Your task to perform on an android device: install app "Google Translate" Image 0: 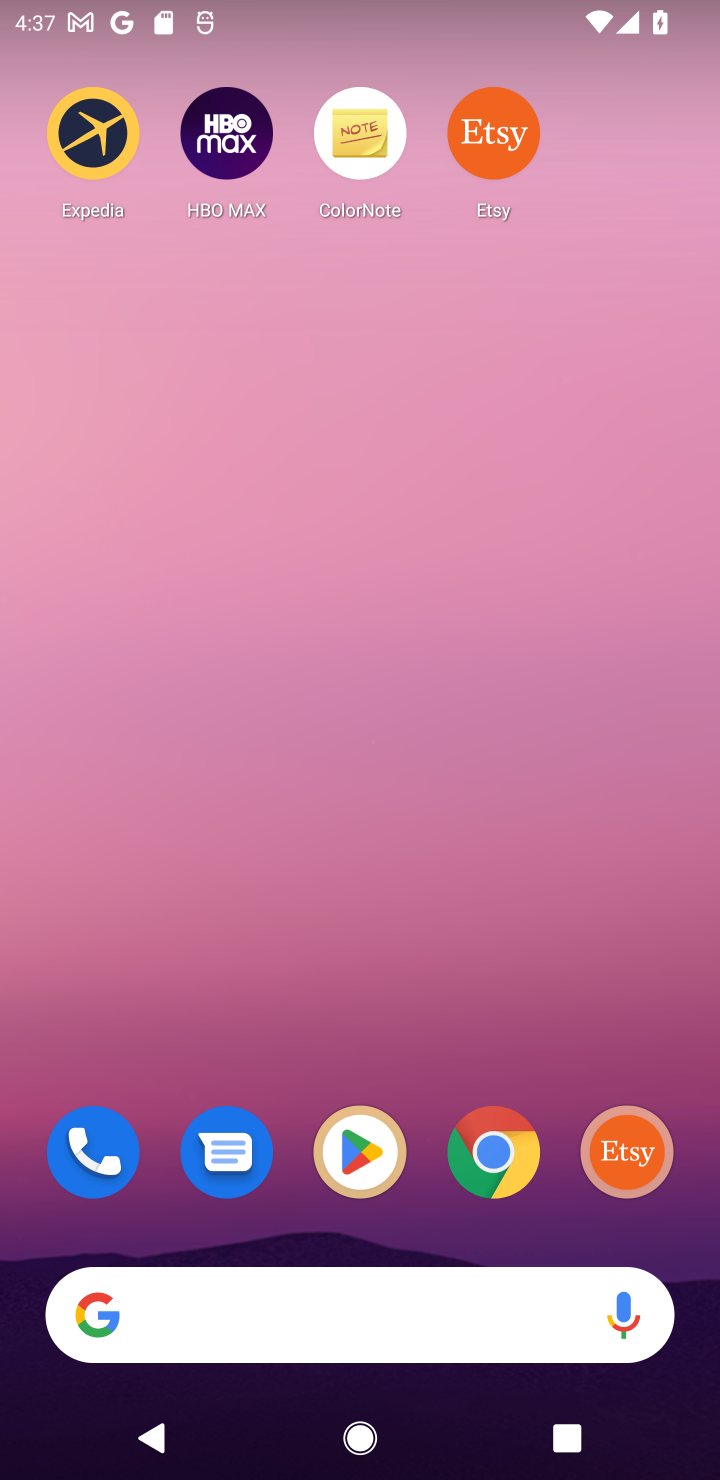
Step 0: click (351, 1170)
Your task to perform on an android device: install app "Google Translate" Image 1: 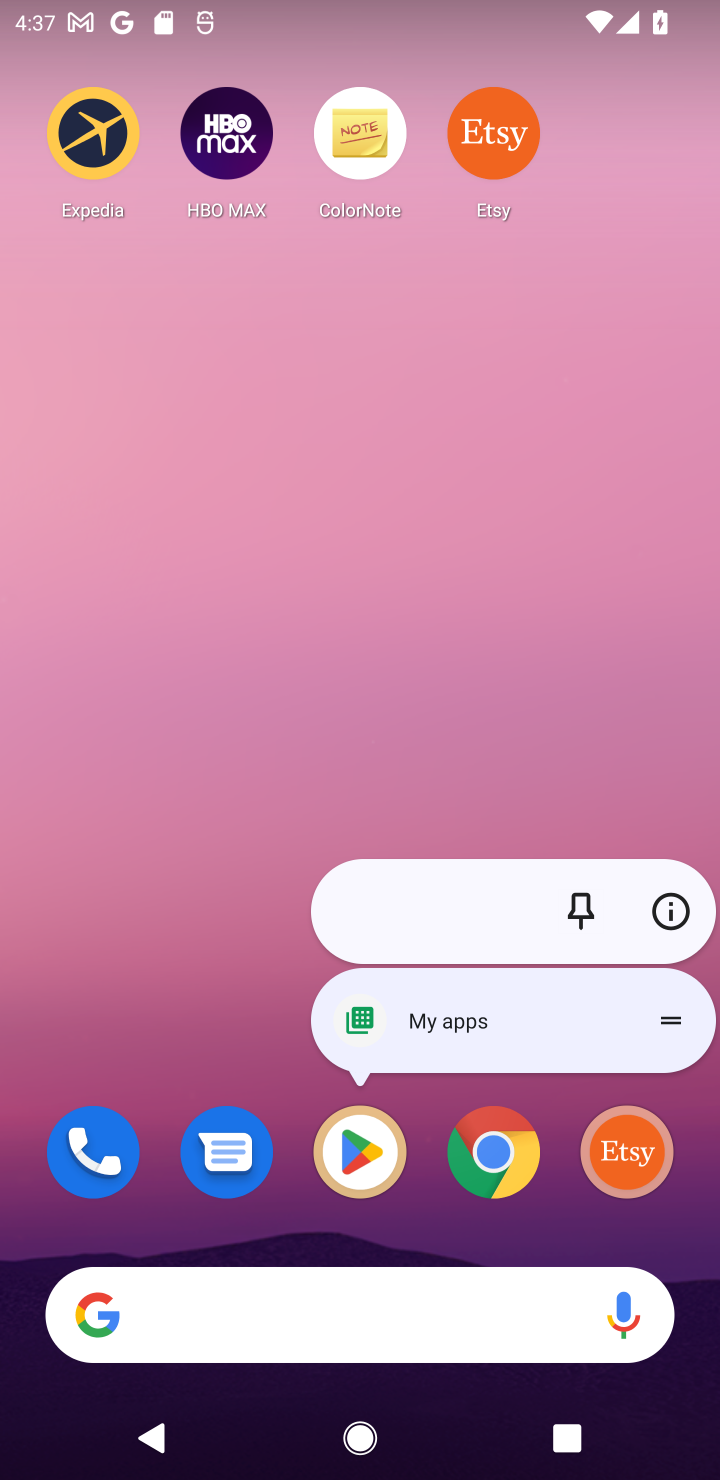
Step 1: click (367, 1173)
Your task to perform on an android device: install app "Google Translate" Image 2: 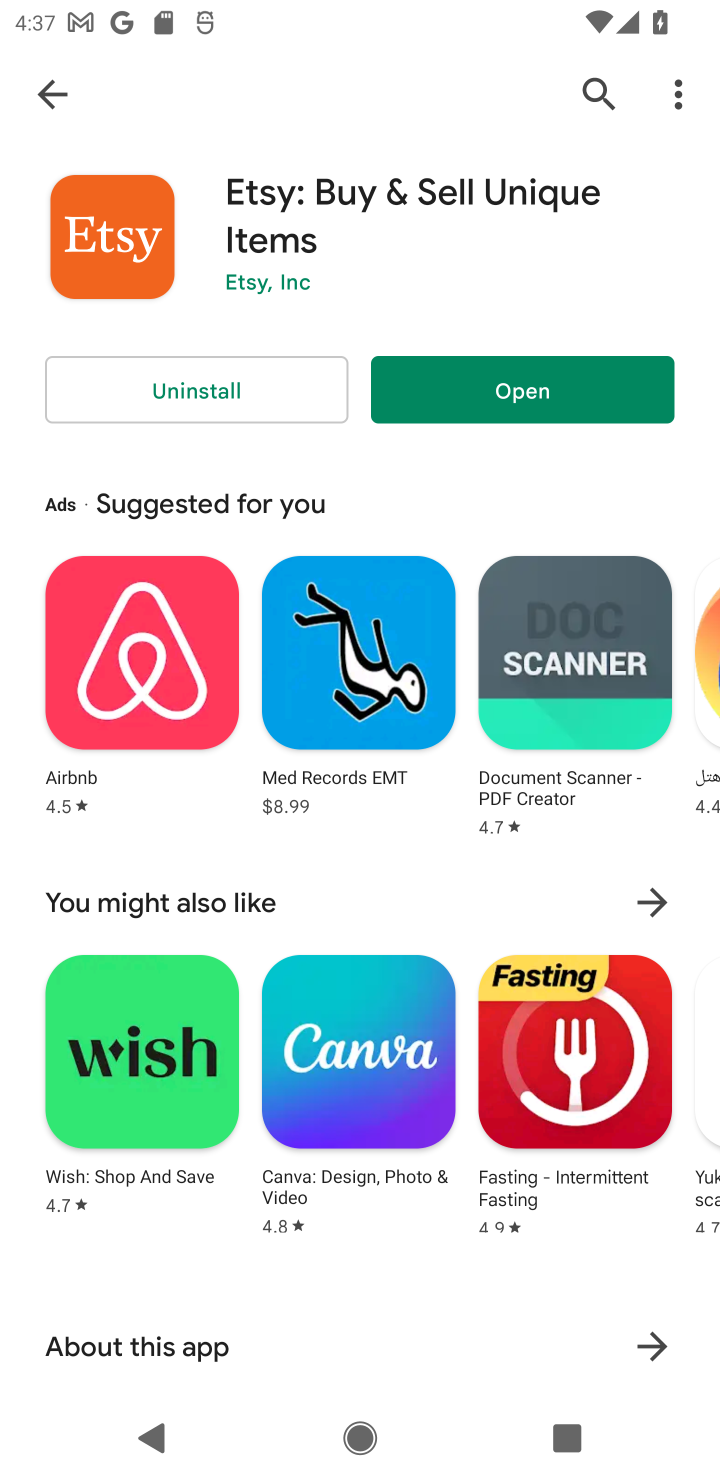
Step 2: click (44, 115)
Your task to perform on an android device: install app "Google Translate" Image 3: 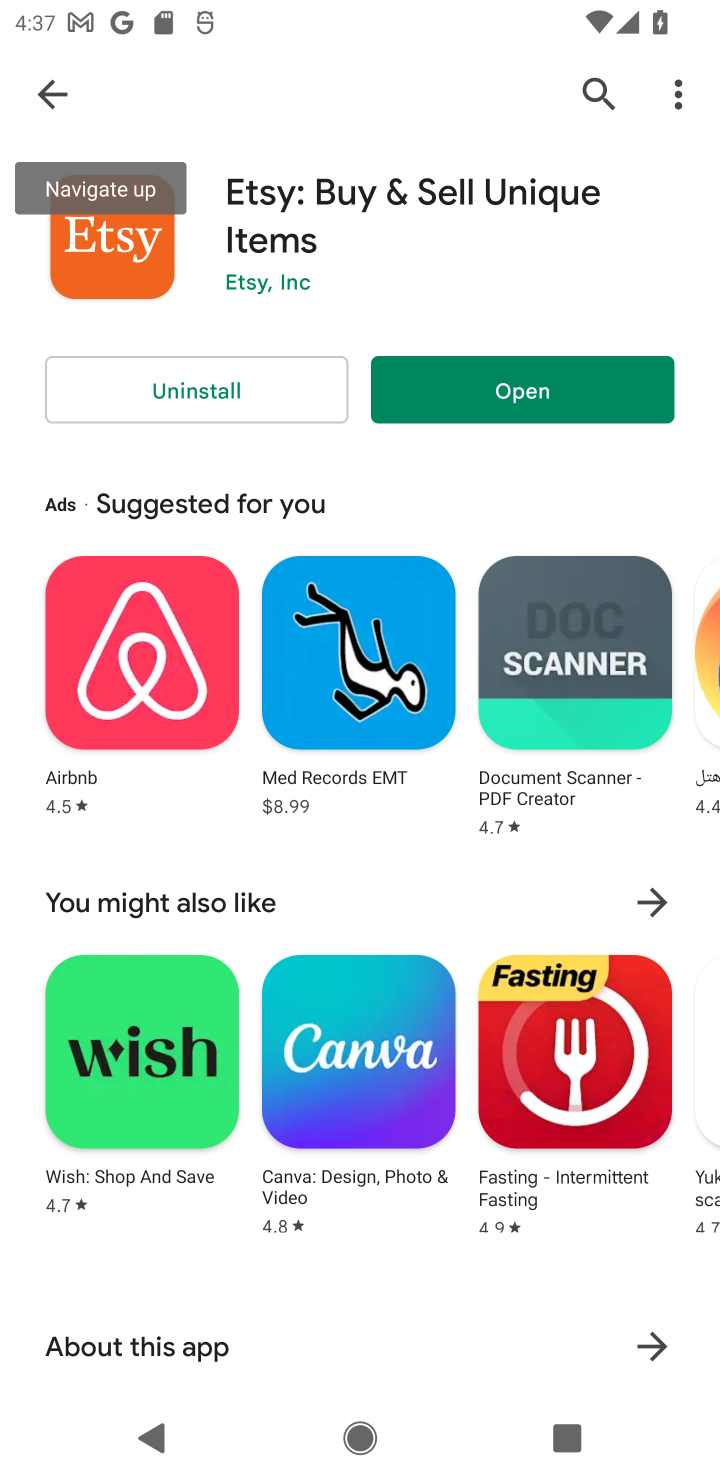
Step 3: click (44, 115)
Your task to perform on an android device: install app "Google Translate" Image 4: 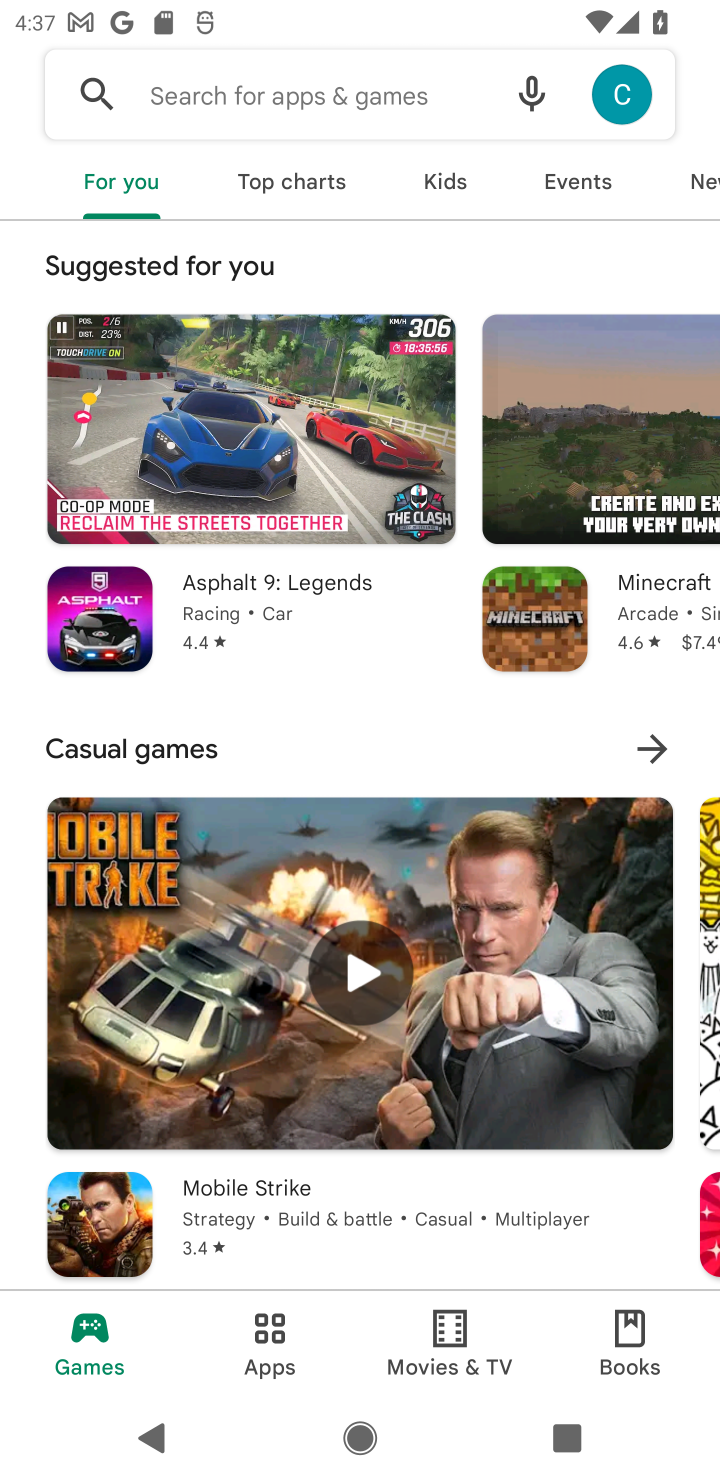
Step 4: click (136, 97)
Your task to perform on an android device: install app "Google Translate" Image 5: 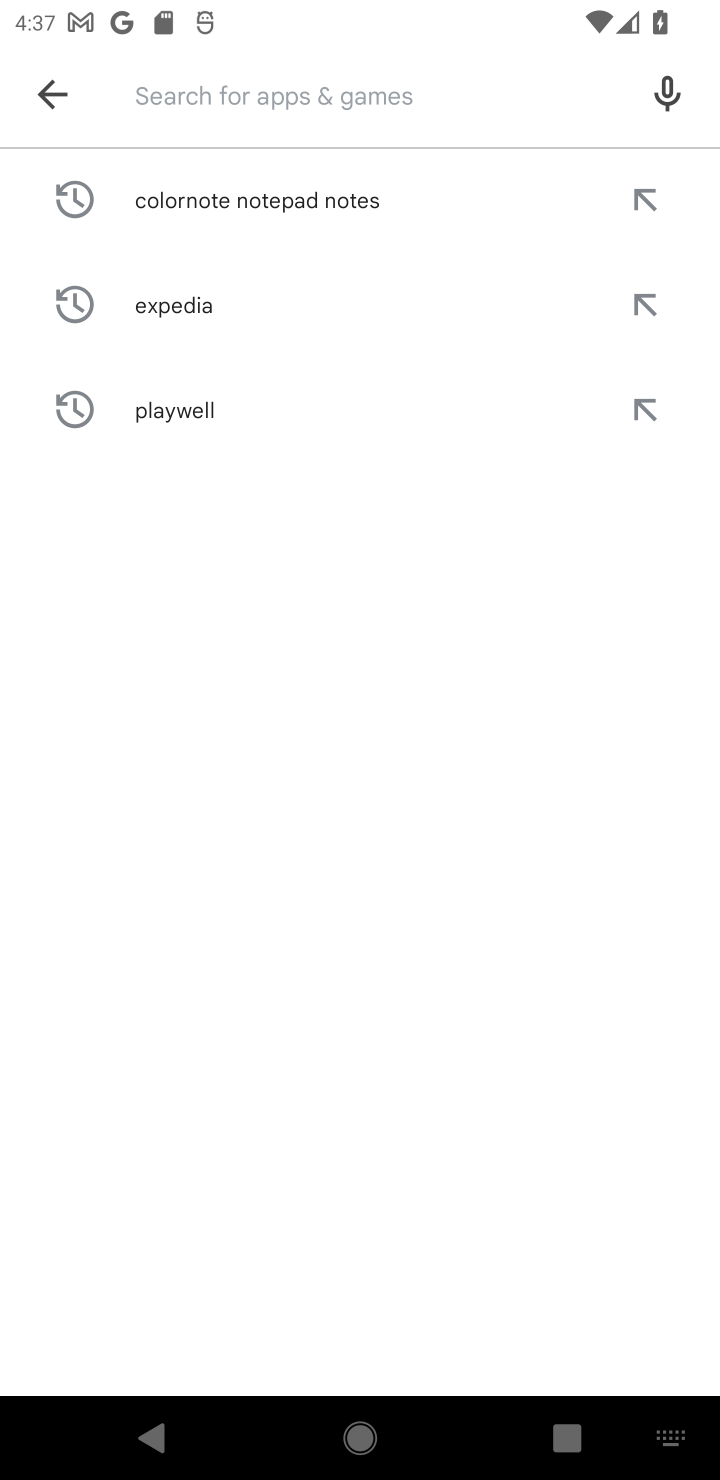
Step 5: type "Google Translate"
Your task to perform on an android device: install app "Google Translate" Image 6: 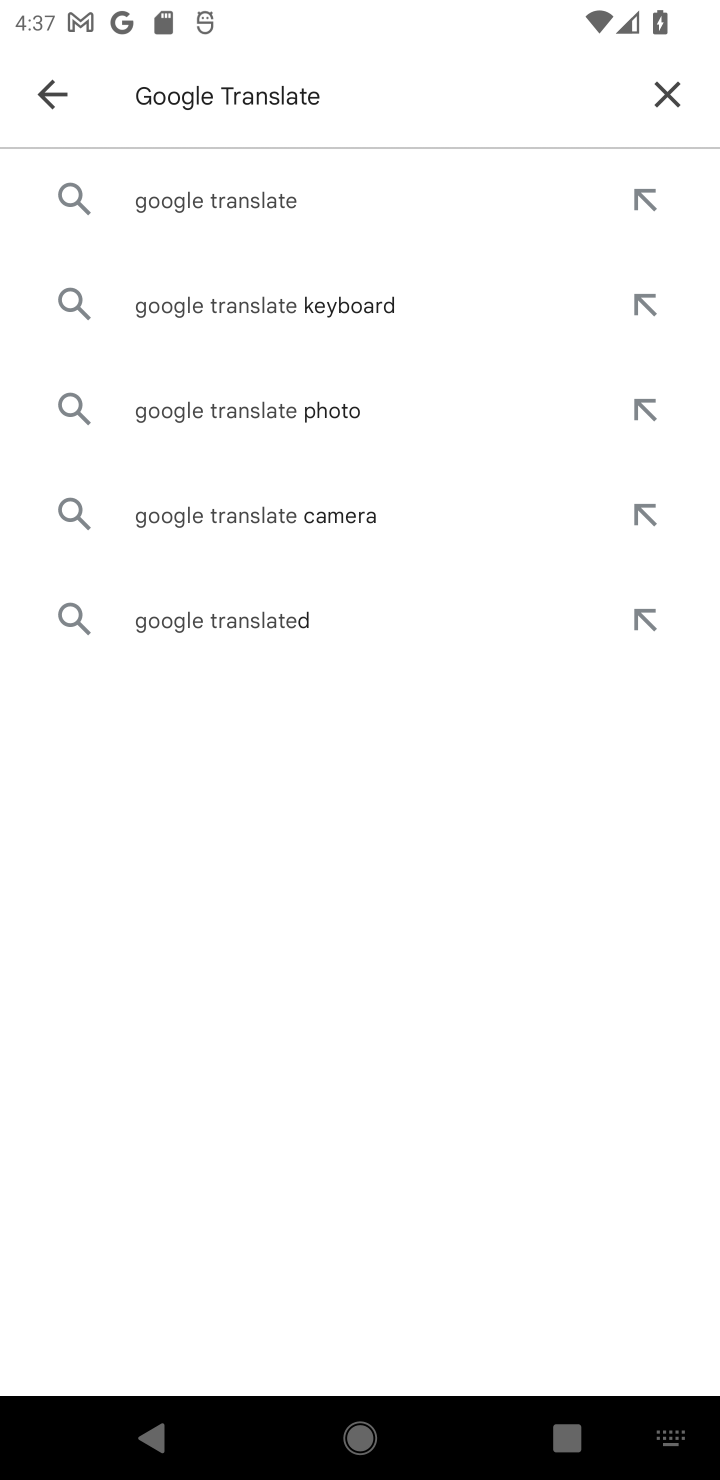
Step 6: click (297, 216)
Your task to perform on an android device: install app "Google Translate" Image 7: 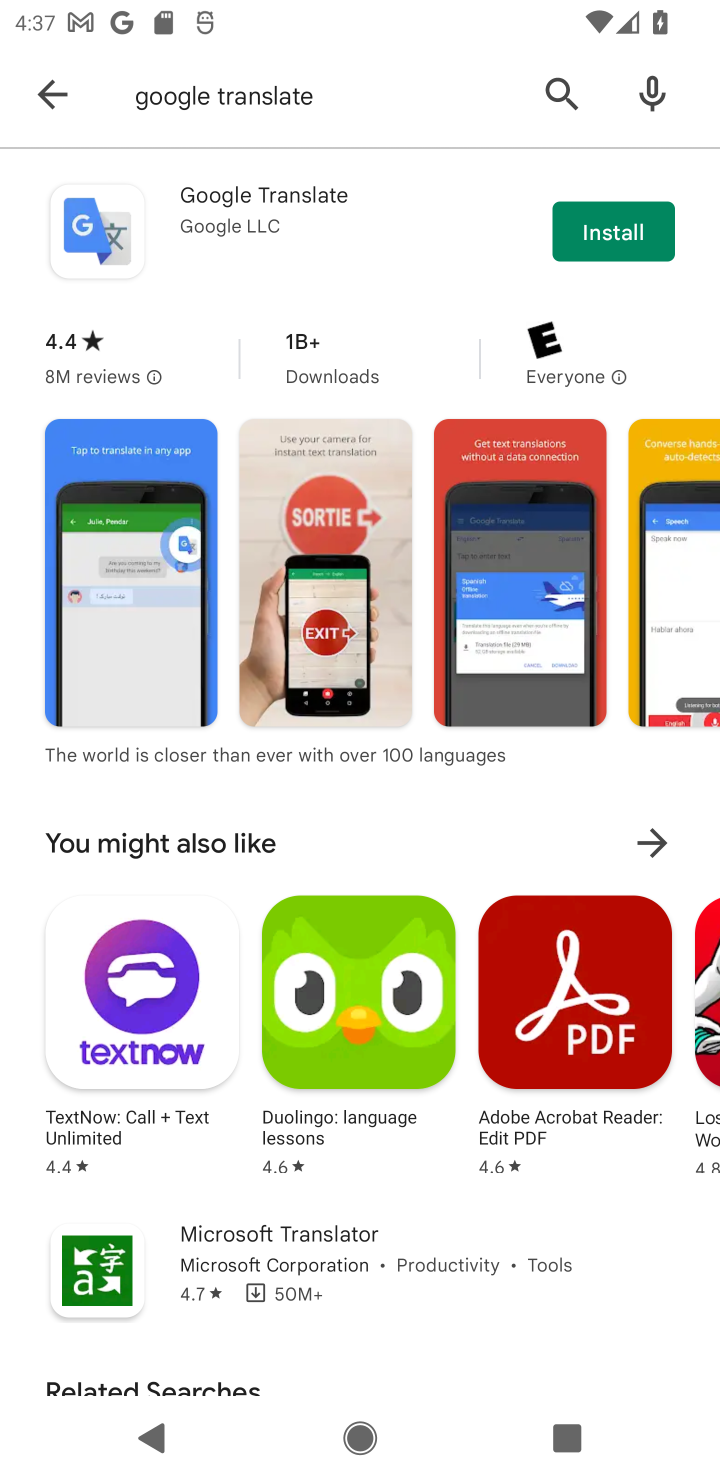
Step 7: click (615, 219)
Your task to perform on an android device: install app "Google Translate" Image 8: 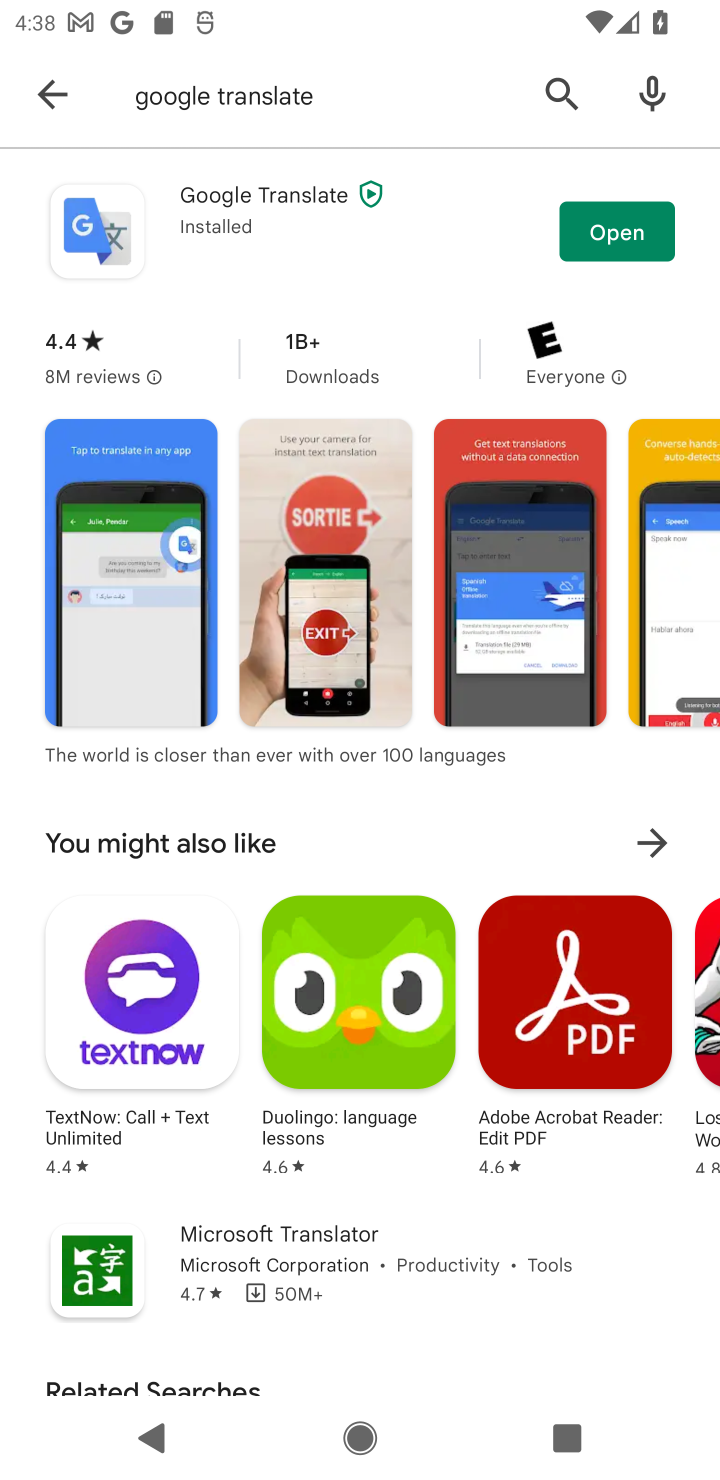
Step 8: task complete